Your task to perform on an android device: Show the shopping cart on newegg.com. Image 0: 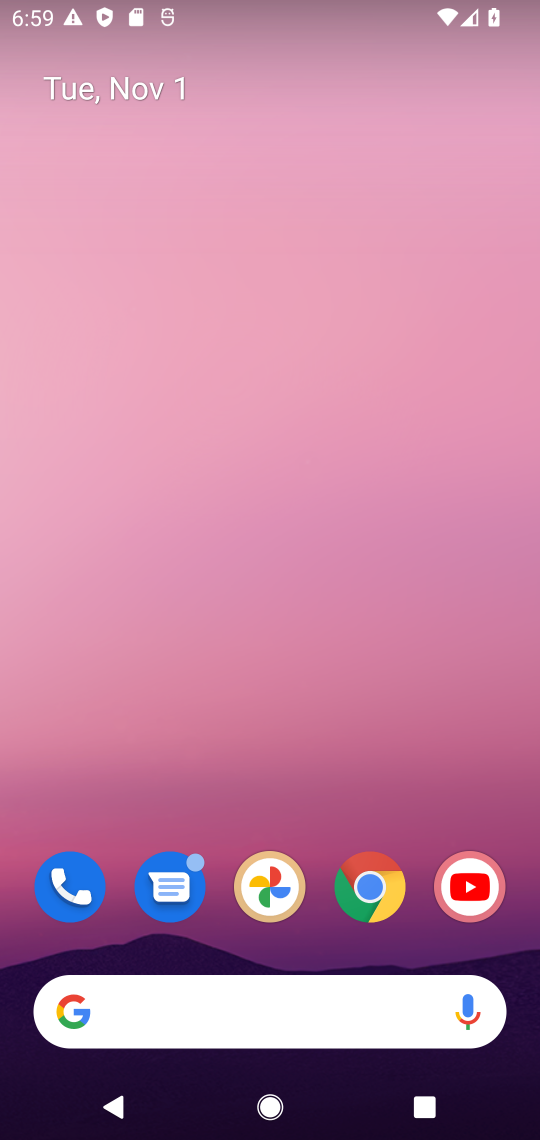
Step 0: press home button
Your task to perform on an android device: Show the shopping cart on newegg.com. Image 1: 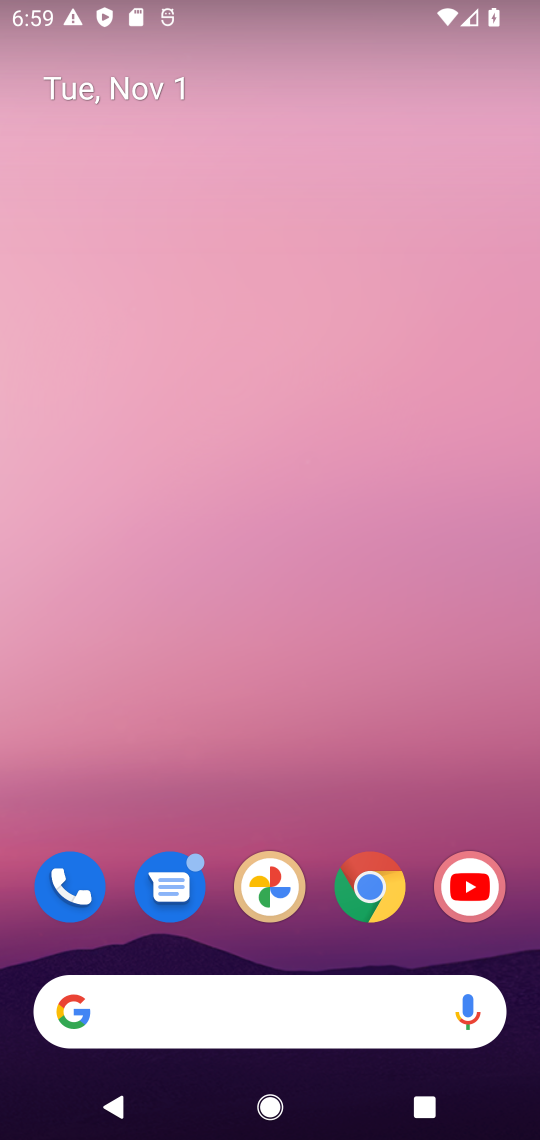
Step 1: drag from (303, 650) to (305, 97)
Your task to perform on an android device: Show the shopping cart on newegg.com. Image 2: 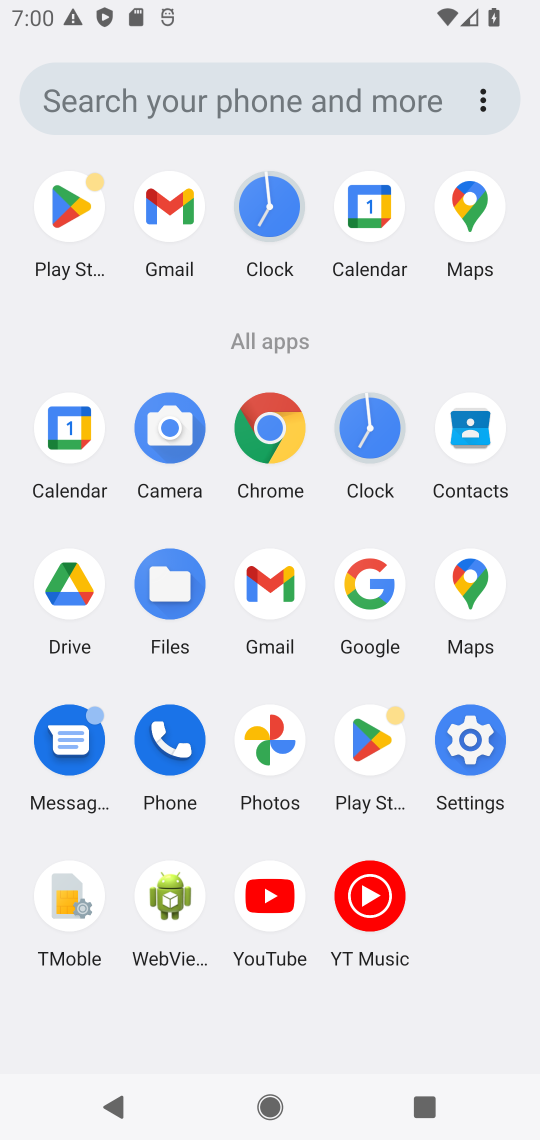
Step 2: click (364, 573)
Your task to perform on an android device: Show the shopping cart on newegg.com. Image 3: 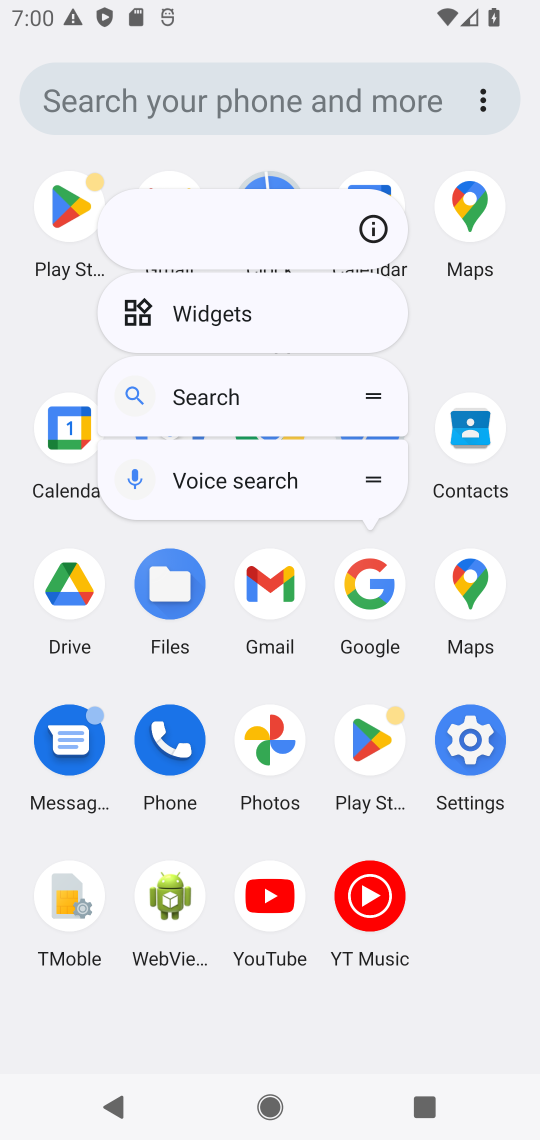
Step 3: click (365, 589)
Your task to perform on an android device: Show the shopping cart on newegg.com. Image 4: 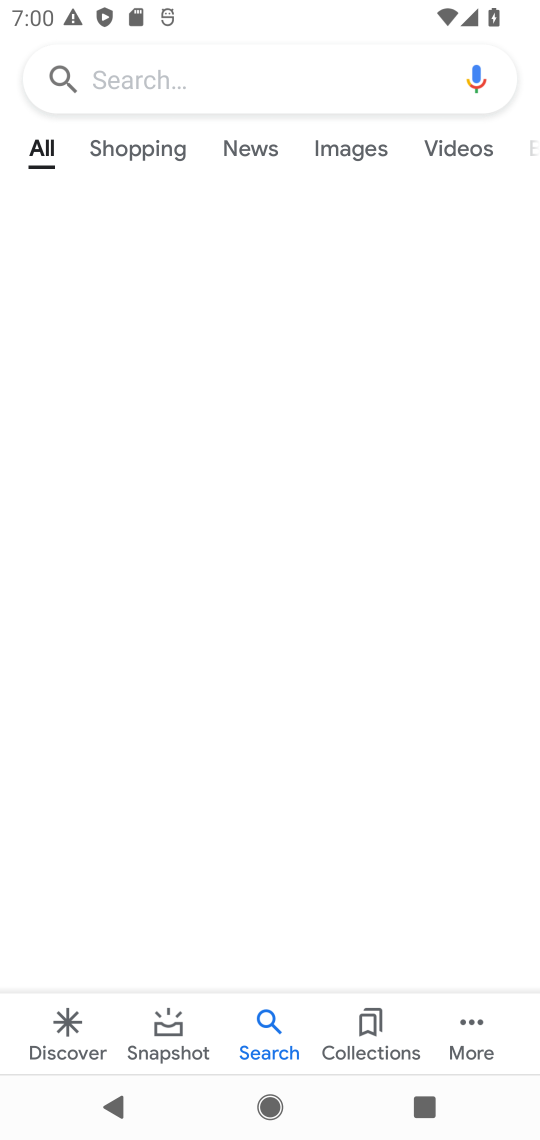
Step 4: press home button
Your task to perform on an android device: Show the shopping cart on newegg.com. Image 5: 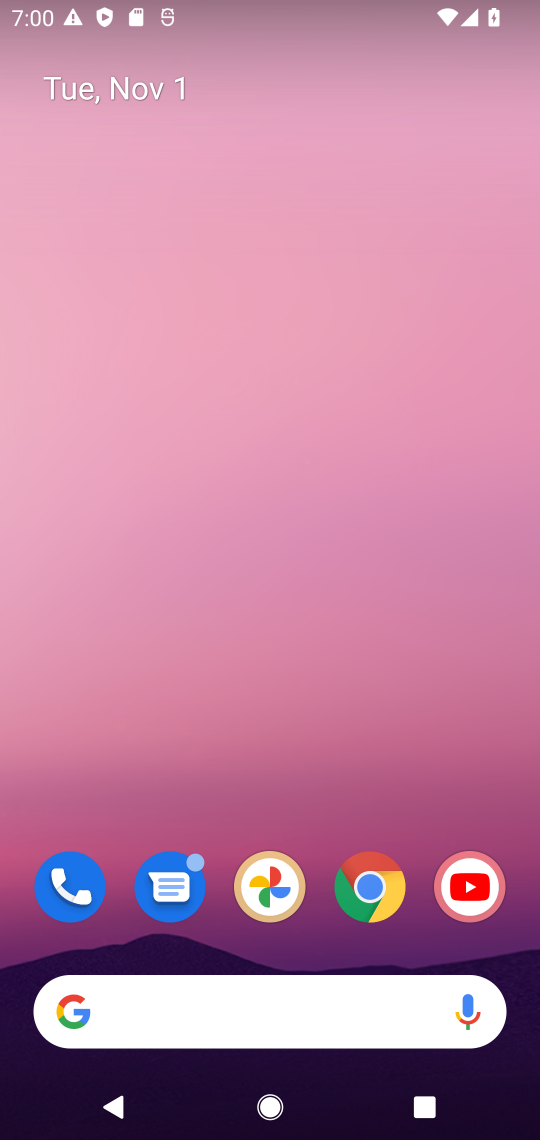
Step 5: drag from (291, 943) to (252, 435)
Your task to perform on an android device: Show the shopping cart on newegg.com. Image 6: 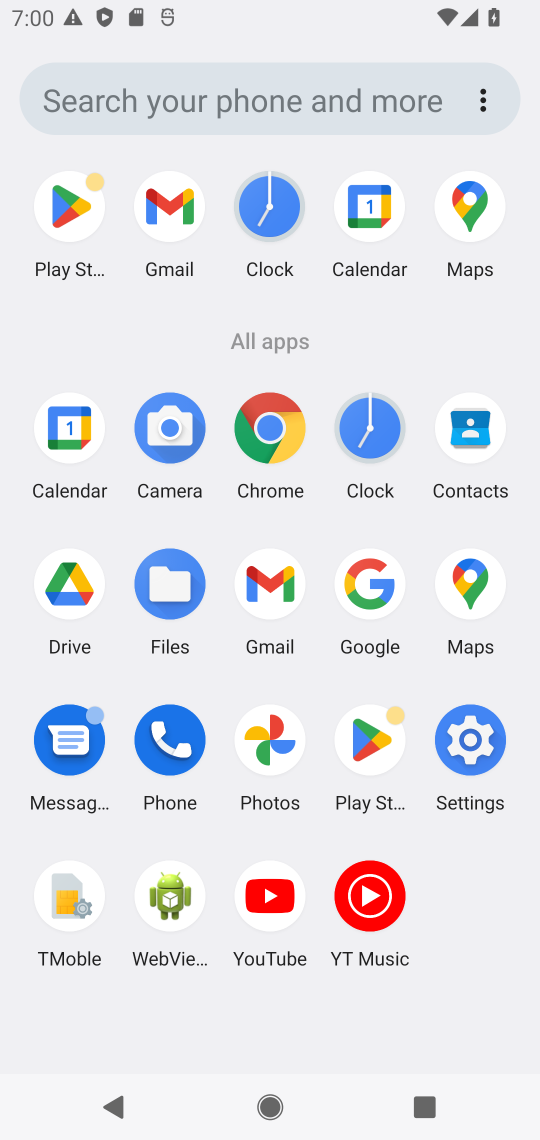
Step 6: click (379, 579)
Your task to perform on an android device: Show the shopping cart on newegg.com. Image 7: 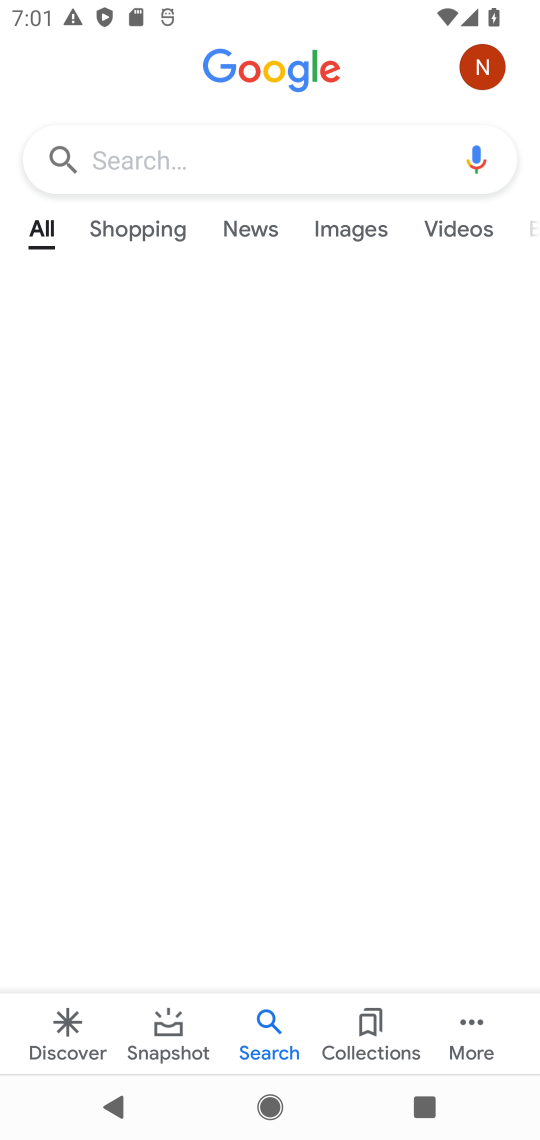
Step 7: click (218, 140)
Your task to perform on an android device: Show the shopping cart on newegg.com. Image 8: 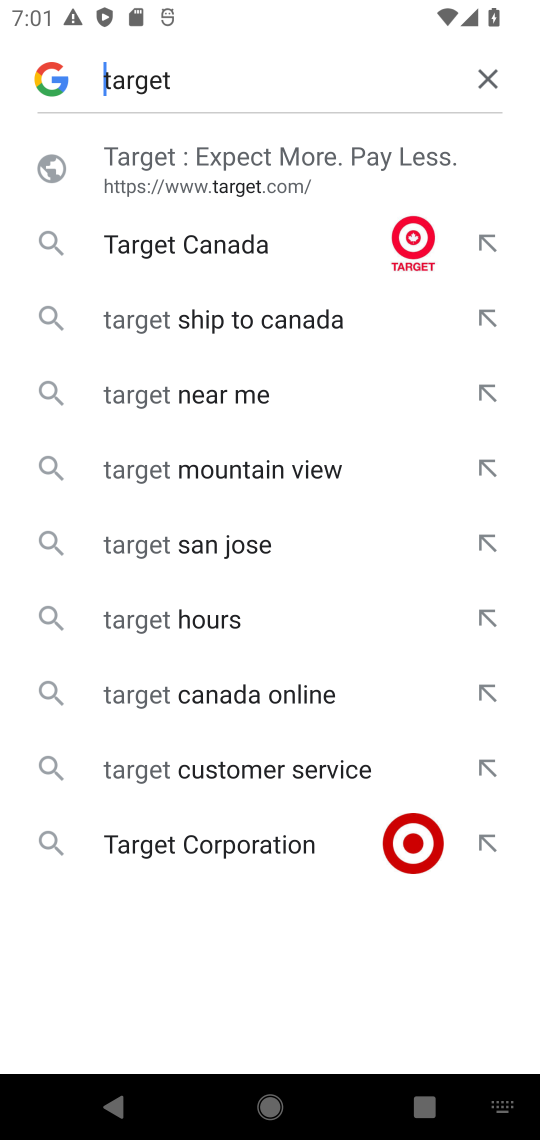
Step 8: type "newegg "
Your task to perform on an android device: Show the shopping cart on newegg.com. Image 9: 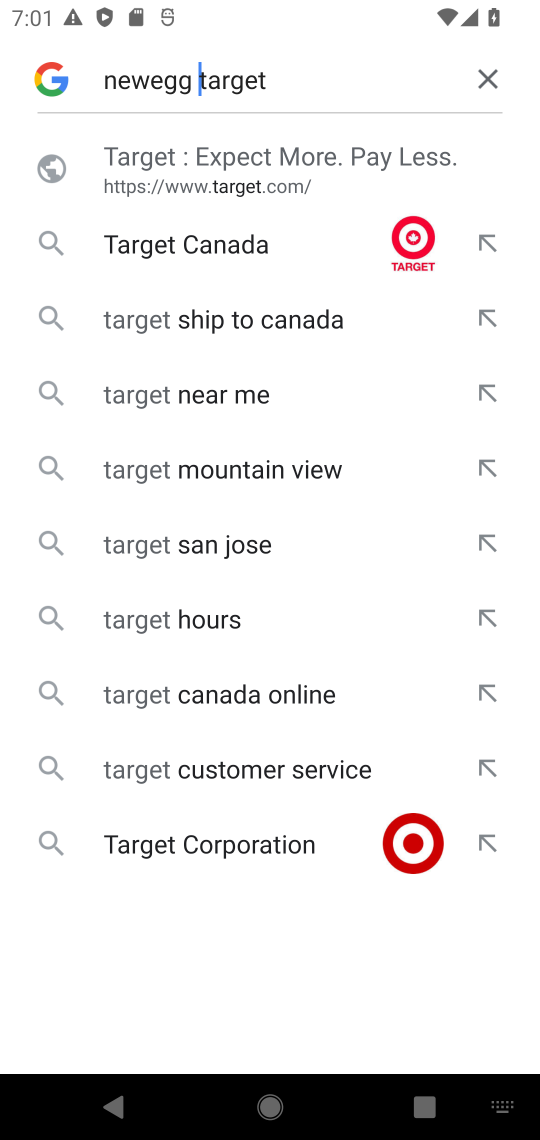
Step 9: click (145, 241)
Your task to perform on an android device: Show the shopping cart on newegg.com. Image 10: 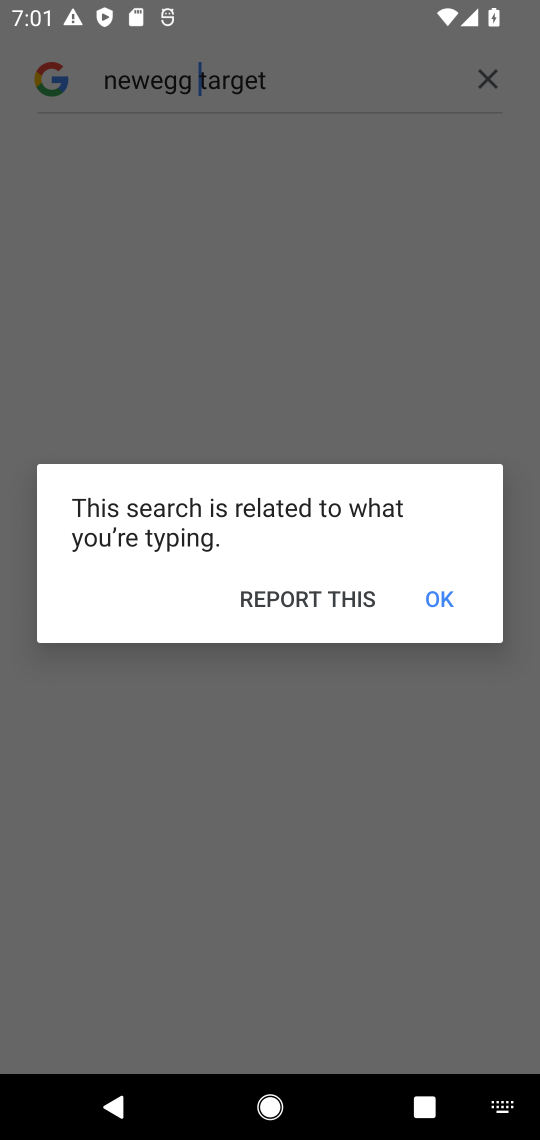
Step 10: click (422, 589)
Your task to perform on an android device: Show the shopping cart on newegg.com. Image 11: 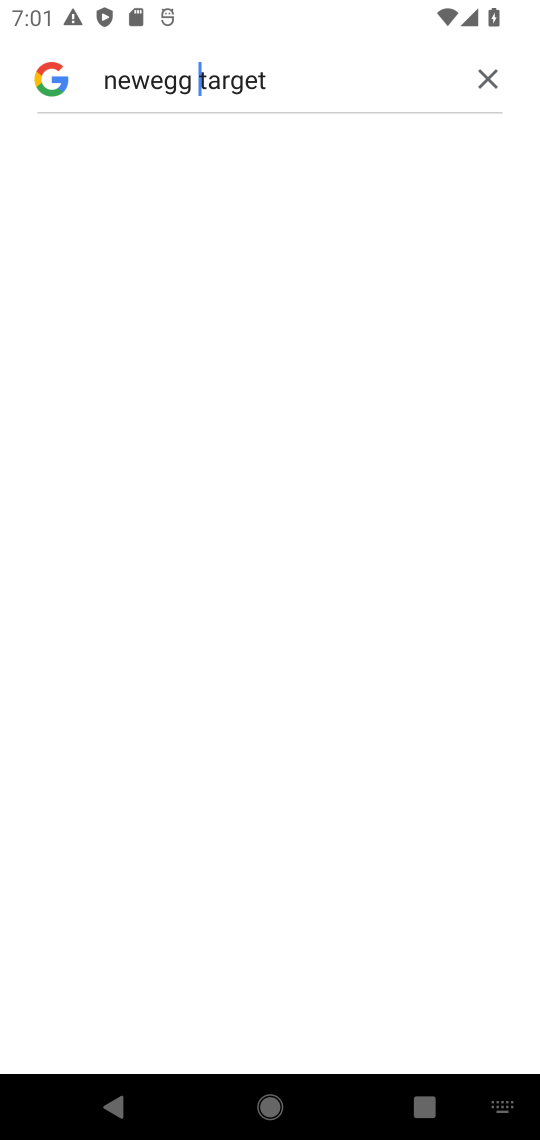
Step 11: click (485, 73)
Your task to perform on an android device: Show the shopping cart on newegg.com. Image 12: 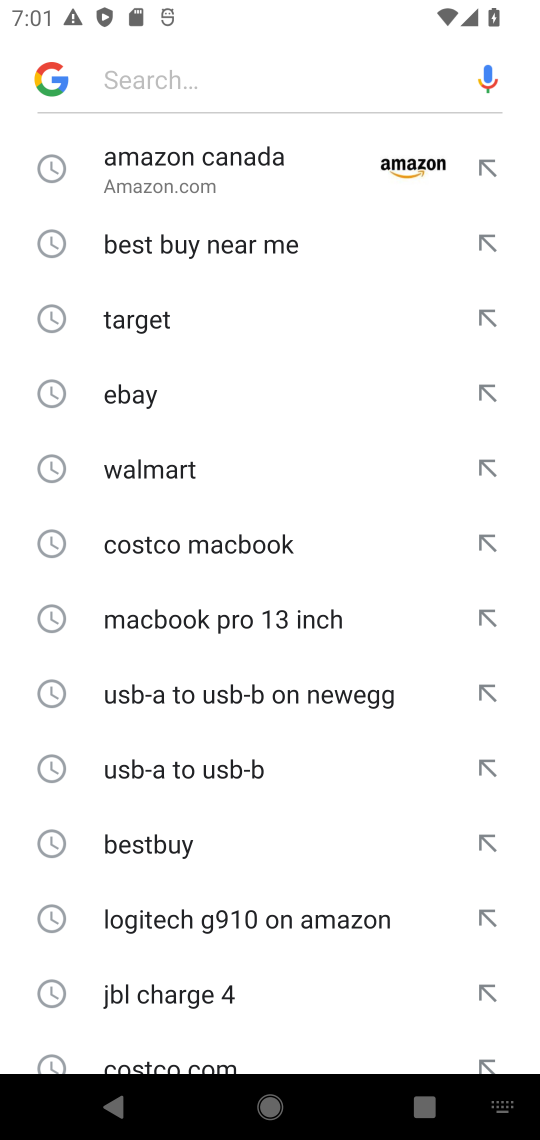
Step 12: click (269, 66)
Your task to perform on an android device: Show the shopping cart on newegg.com. Image 13: 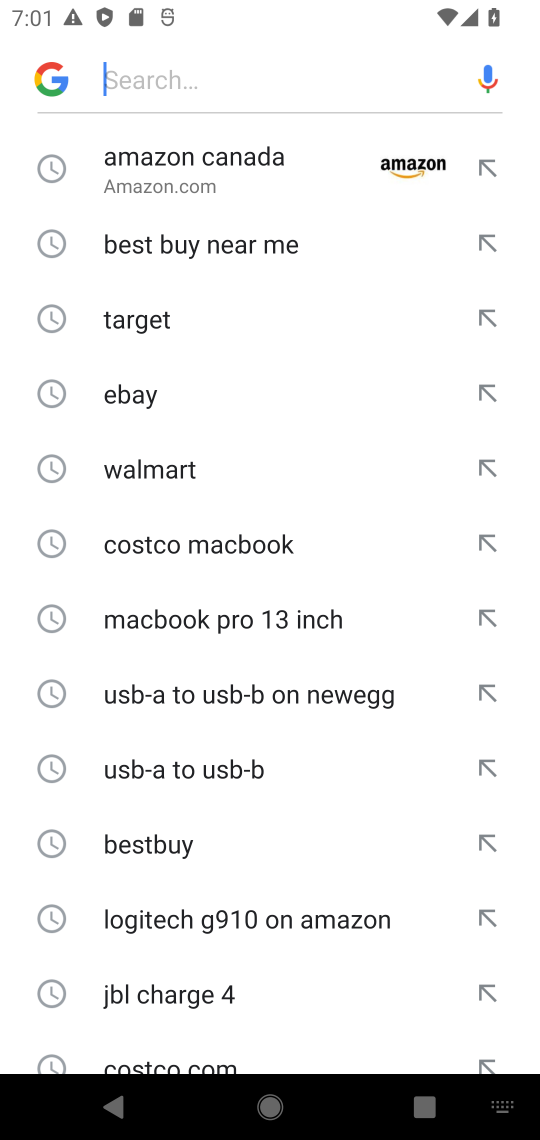
Step 13: type "newegg "
Your task to perform on an android device: Show the shopping cart on newegg.com. Image 14: 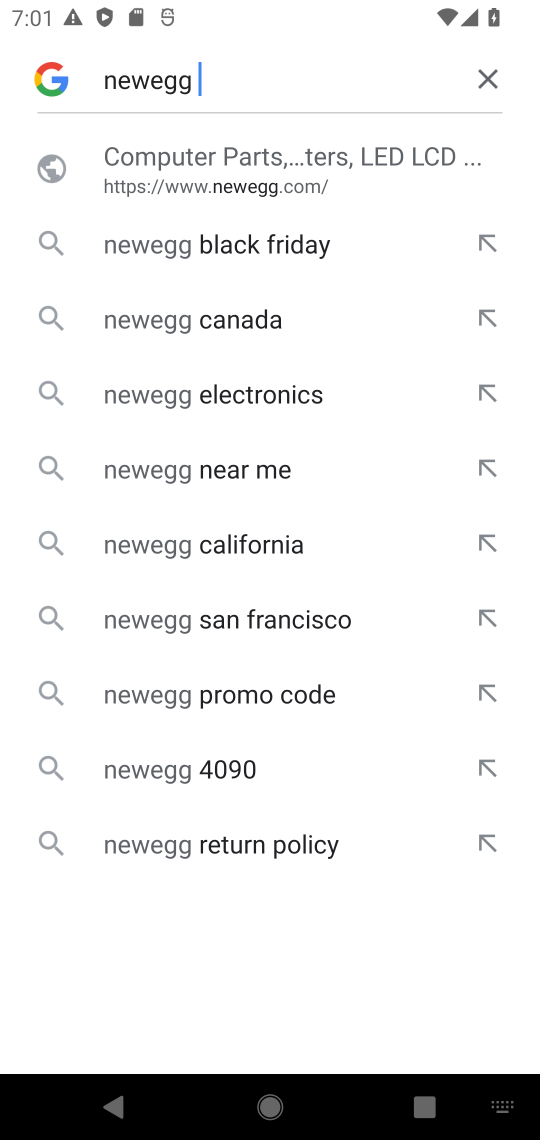
Step 14: click (225, 473)
Your task to perform on an android device: Show the shopping cart on newegg.com. Image 15: 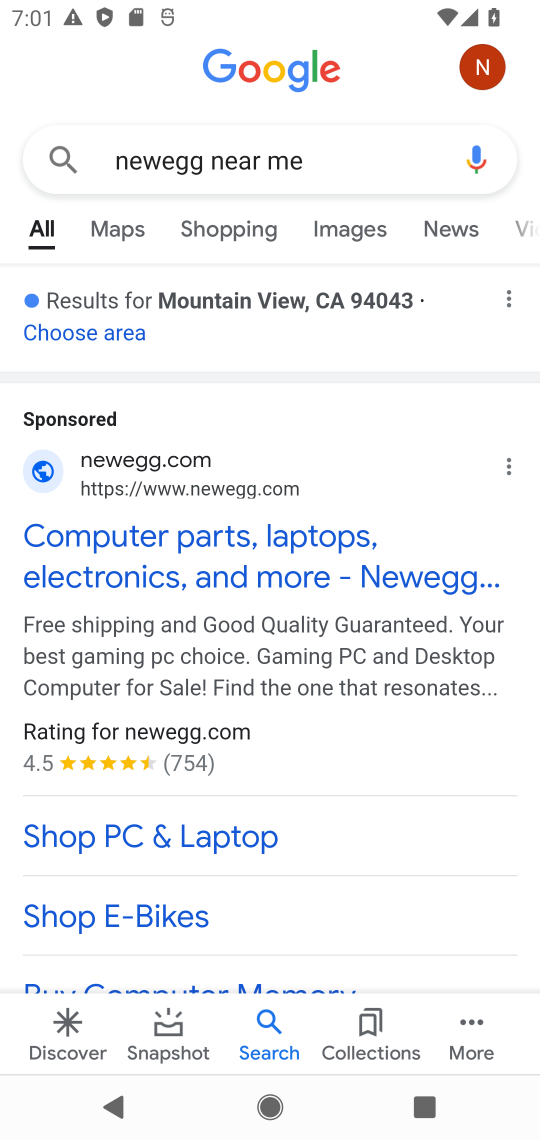
Step 15: drag from (319, 940) to (338, 438)
Your task to perform on an android device: Show the shopping cart on newegg.com. Image 16: 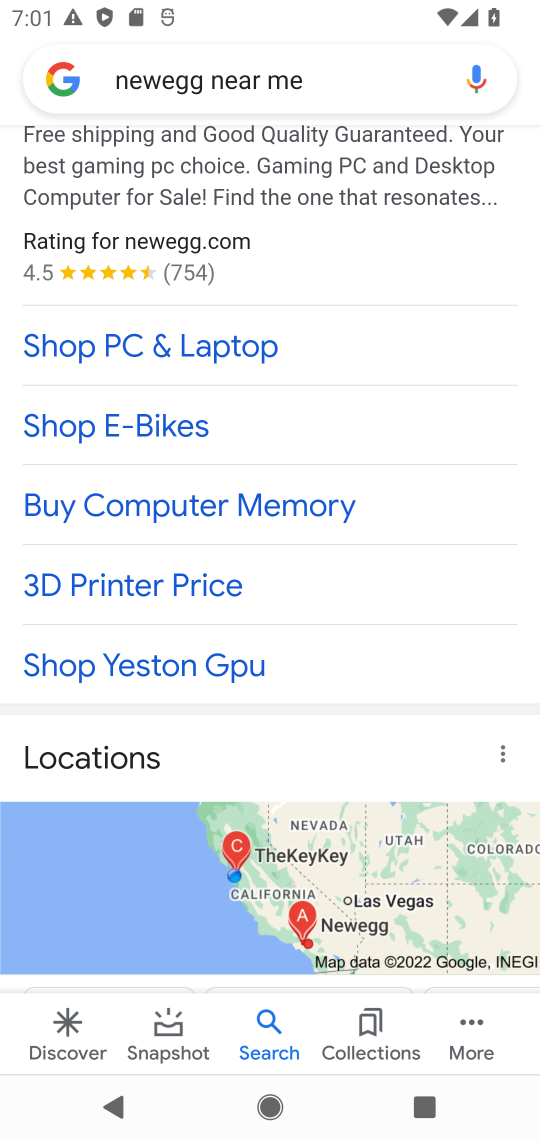
Step 16: drag from (173, 873) to (243, 330)
Your task to perform on an android device: Show the shopping cart on newegg.com. Image 17: 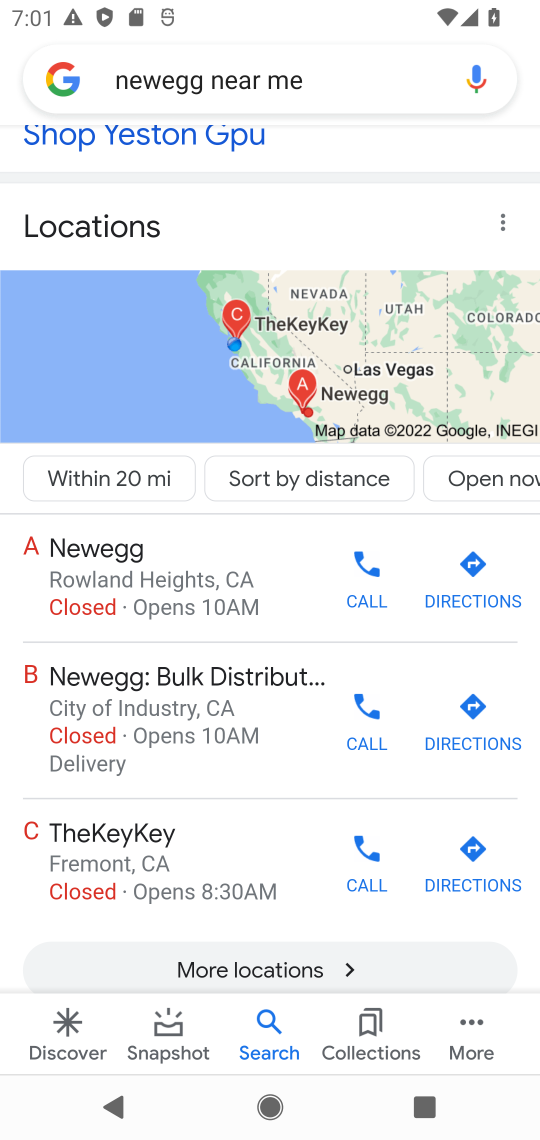
Step 17: drag from (186, 804) to (226, 305)
Your task to perform on an android device: Show the shopping cart on newegg.com. Image 18: 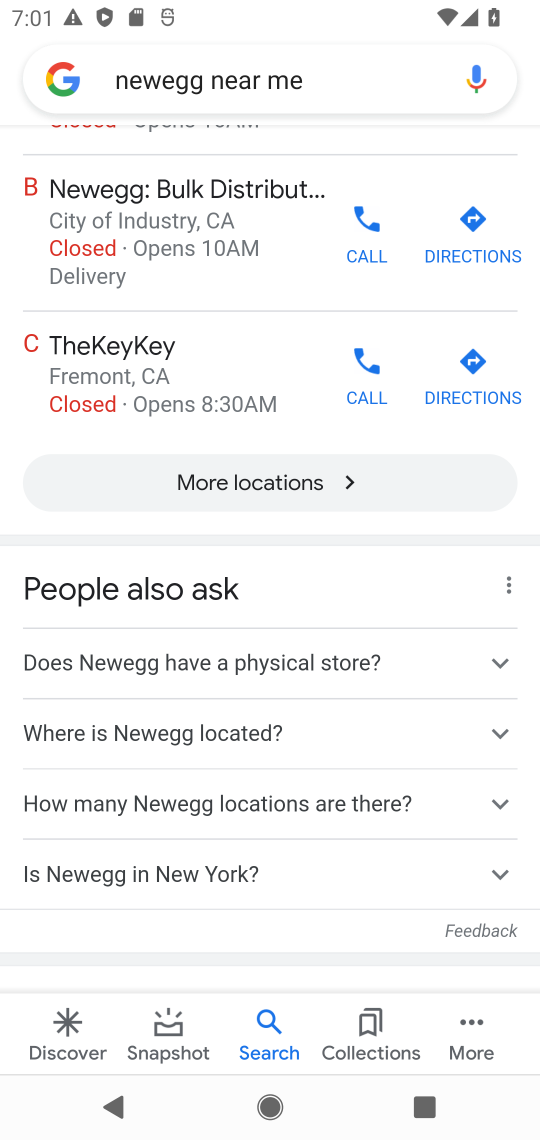
Step 18: drag from (152, 870) to (193, 295)
Your task to perform on an android device: Show the shopping cart on newegg.com. Image 19: 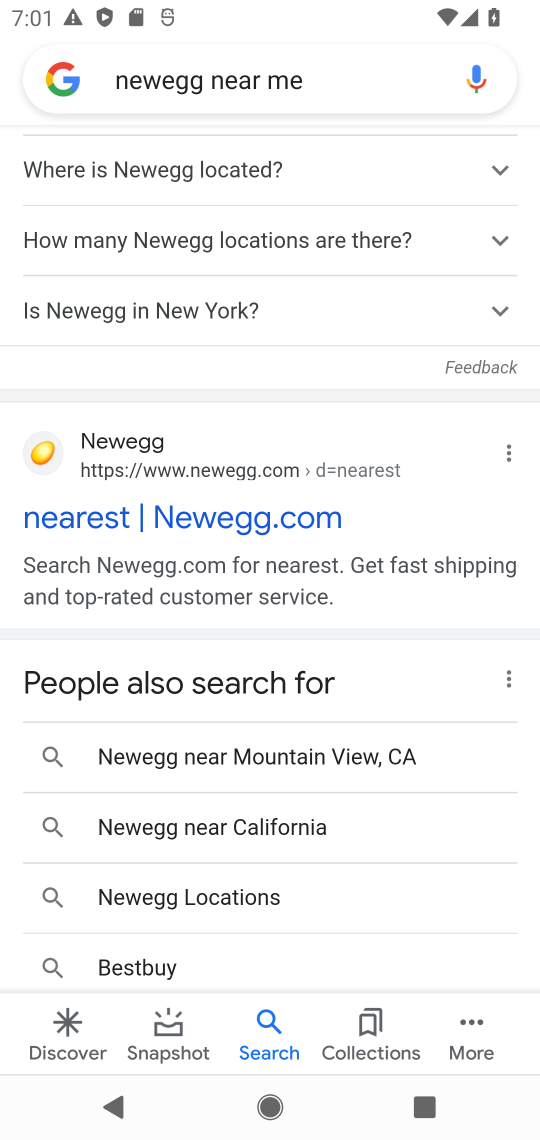
Step 19: click (34, 451)
Your task to perform on an android device: Show the shopping cart on newegg.com. Image 20: 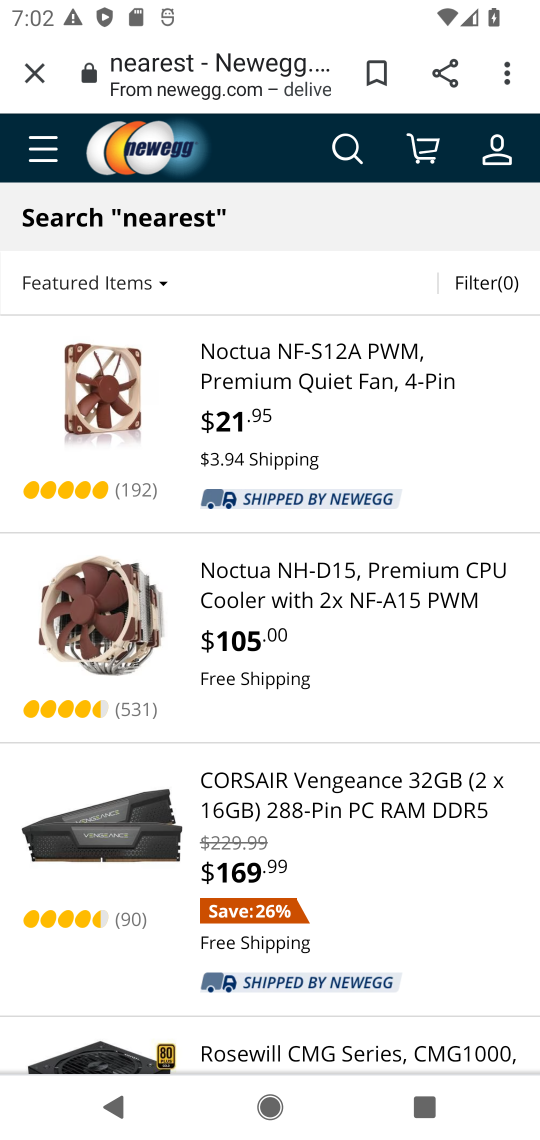
Step 20: click (417, 140)
Your task to perform on an android device: Show the shopping cart on newegg.com. Image 21: 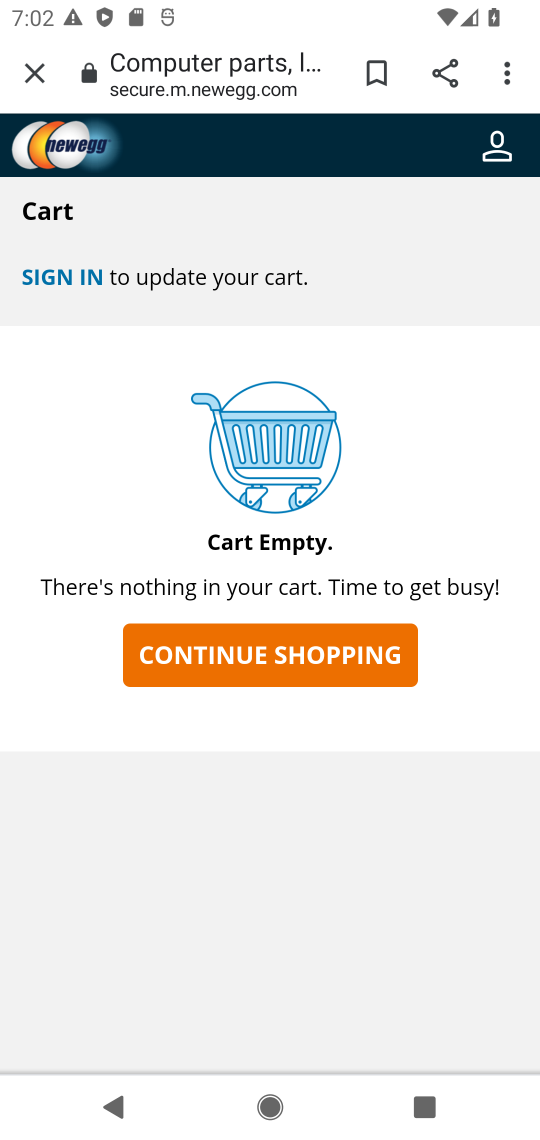
Step 21: task complete